Your task to perform on an android device: set the timer Image 0: 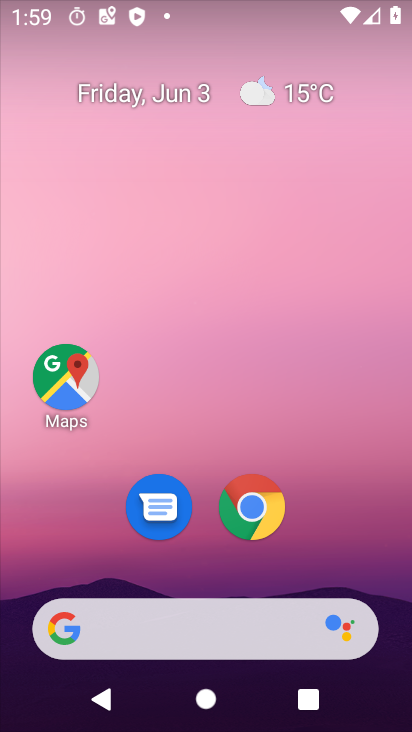
Step 0: drag from (405, 634) to (268, 32)
Your task to perform on an android device: set the timer Image 1: 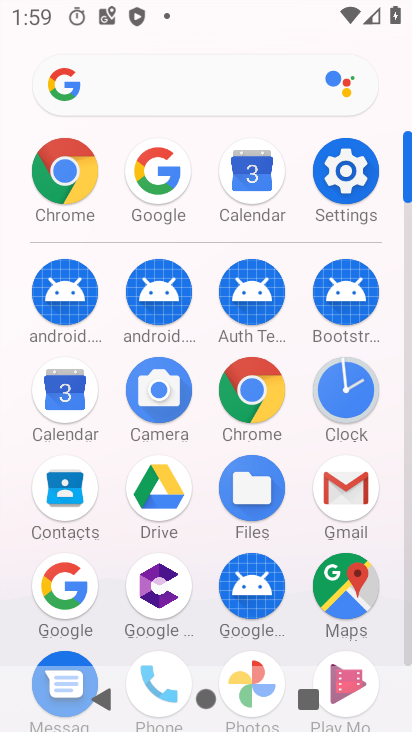
Step 1: click (330, 385)
Your task to perform on an android device: set the timer Image 2: 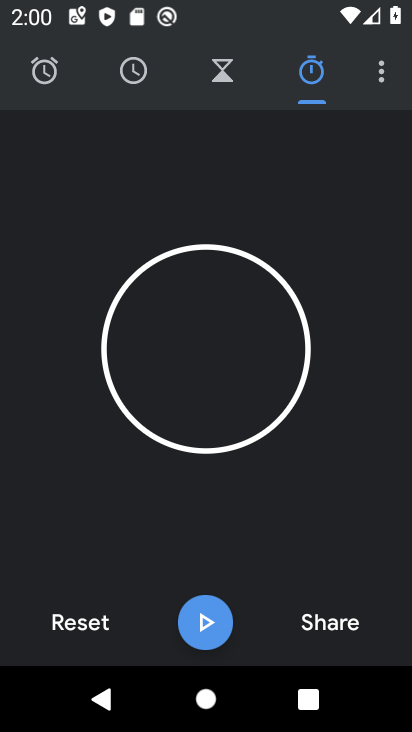
Step 2: click (382, 67)
Your task to perform on an android device: set the timer Image 3: 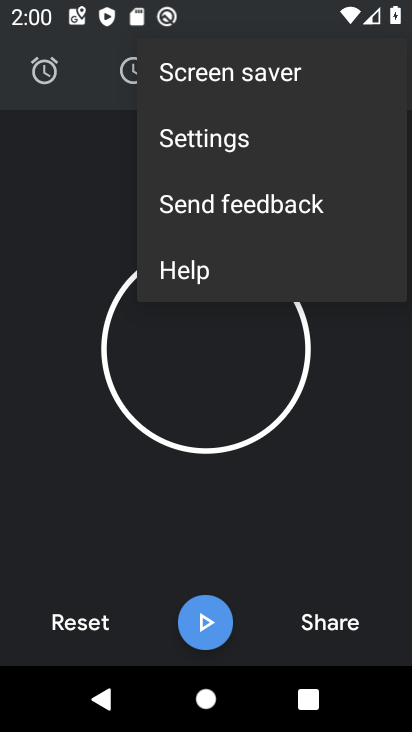
Step 3: click (247, 143)
Your task to perform on an android device: set the timer Image 4: 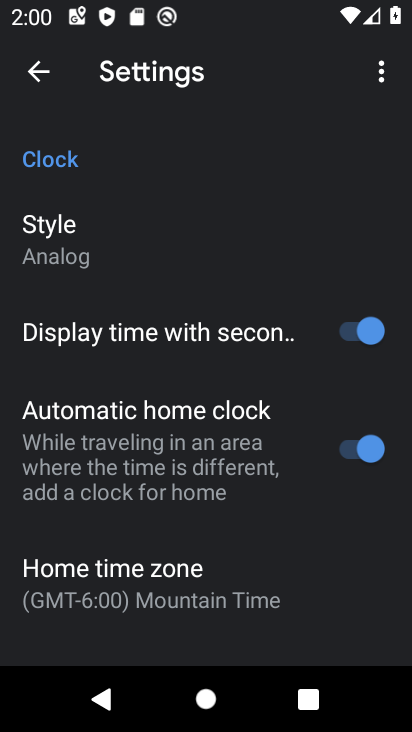
Step 4: click (195, 589)
Your task to perform on an android device: set the timer Image 5: 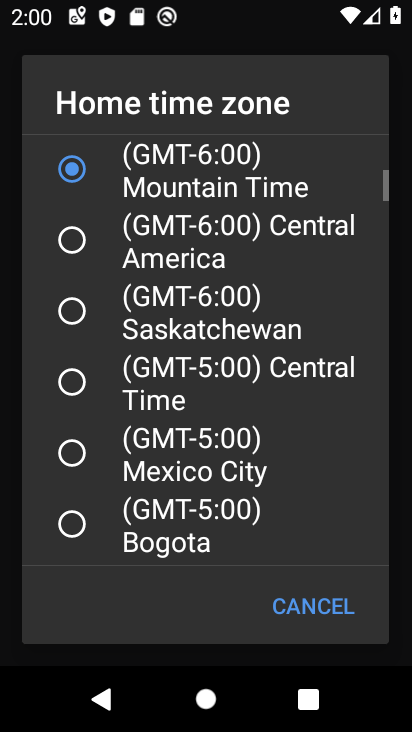
Step 5: click (70, 386)
Your task to perform on an android device: set the timer Image 6: 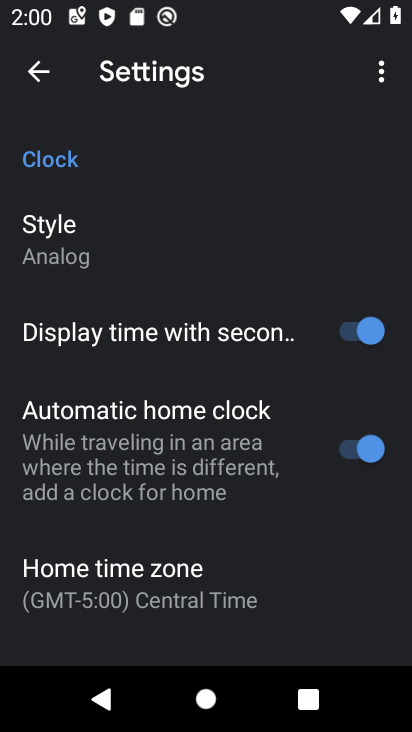
Step 6: task complete